Your task to perform on an android device: Go to Yahoo.com Image 0: 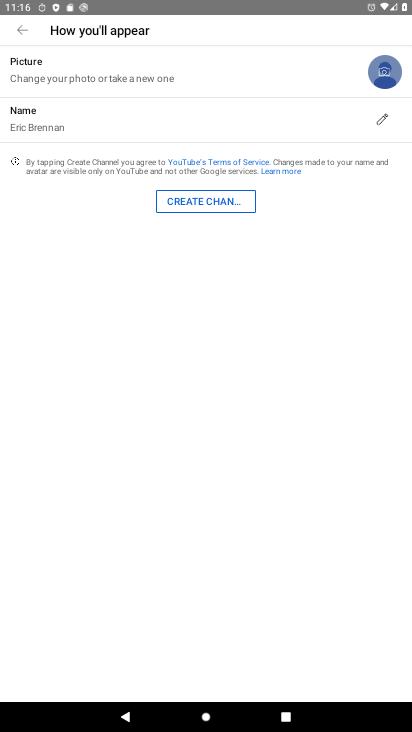
Step 0: press home button
Your task to perform on an android device: Go to Yahoo.com Image 1: 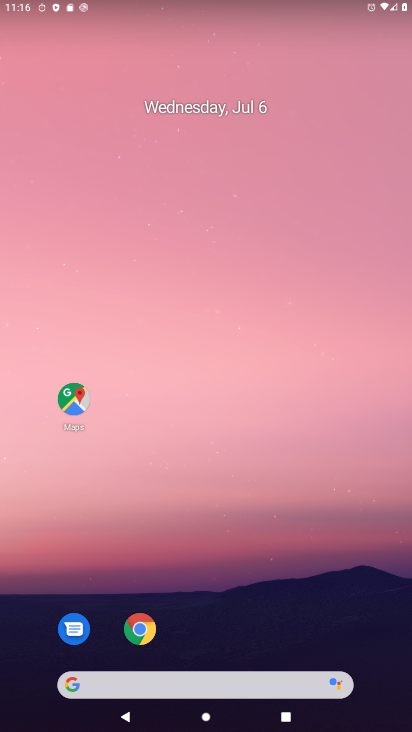
Step 1: drag from (214, 628) to (196, 44)
Your task to perform on an android device: Go to Yahoo.com Image 2: 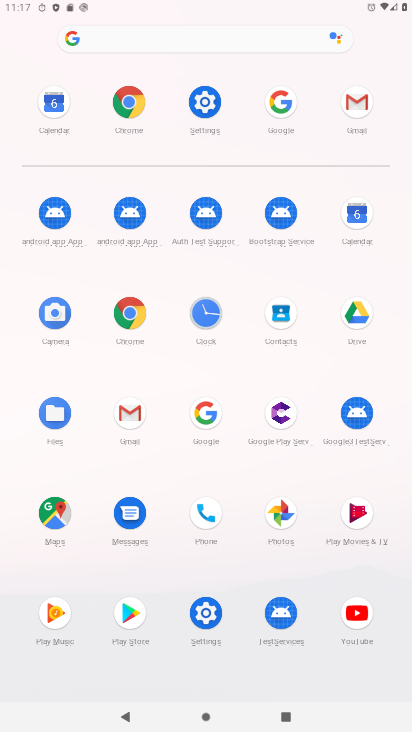
Step 2: click (134, 315)
Your task to perform on an android device: Go to Yahoo.com Image 3: 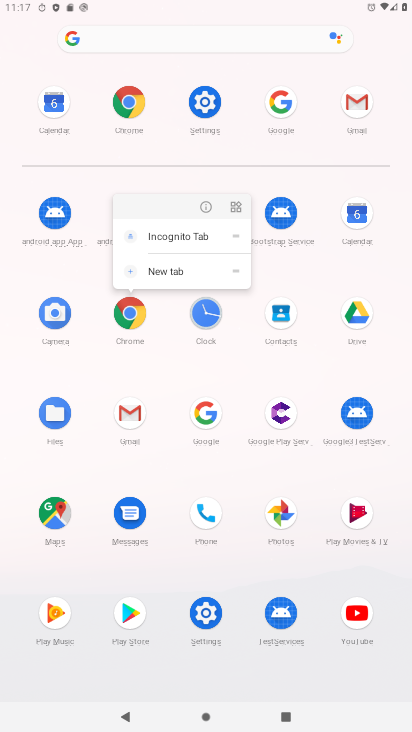
Step 3: click (134, 315)
Your task to perform on an android device: Go to Yahoo.com Image 4: 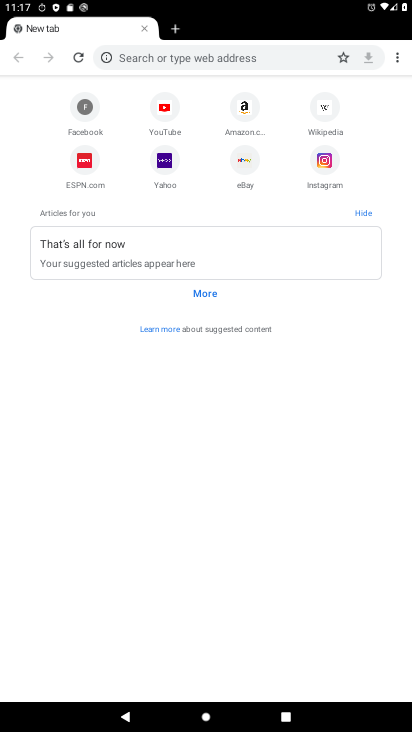
Step 4: click (164, 160)
Your task to perform on an android device: Go to Yahoo.com Image 5: 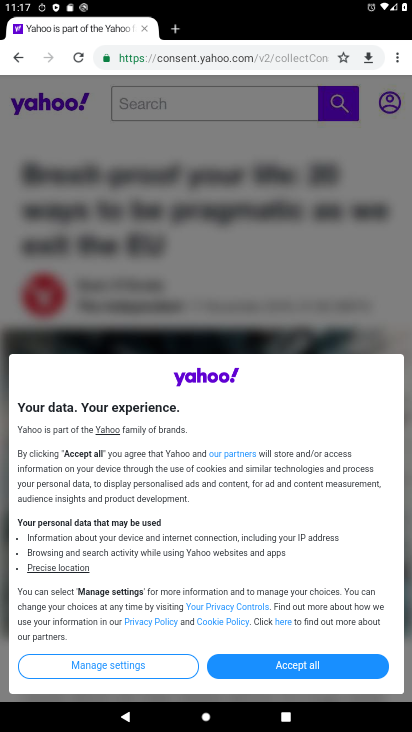
Step 5: task complete